Your task to perform on an android device: turn on the 12-hour format for clock Image 0: 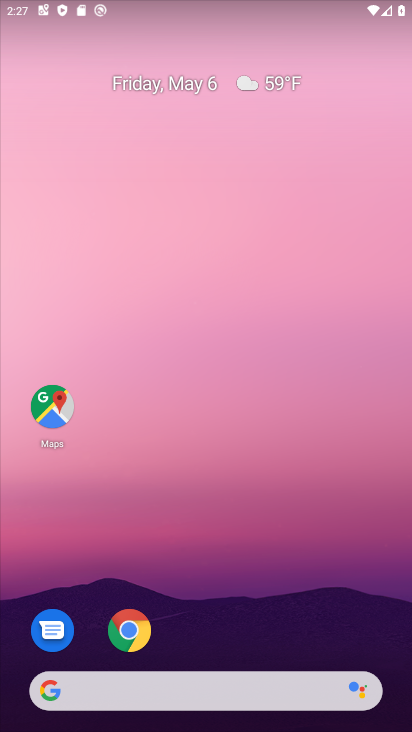
Step 0: drag from (223, 628) to (233, 146)
Your task to perform on an android device: turn on the 12-hour format for clock Image 1: 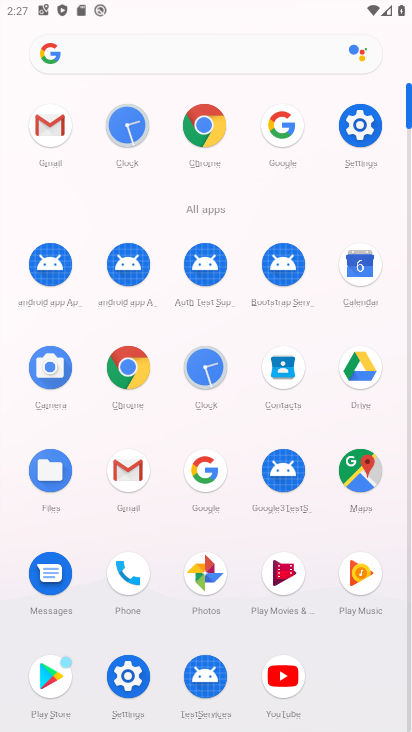
Step 1: click (203, 357)
Your task to perform on an android device: turn on the 12-hour format for clock Image 2: 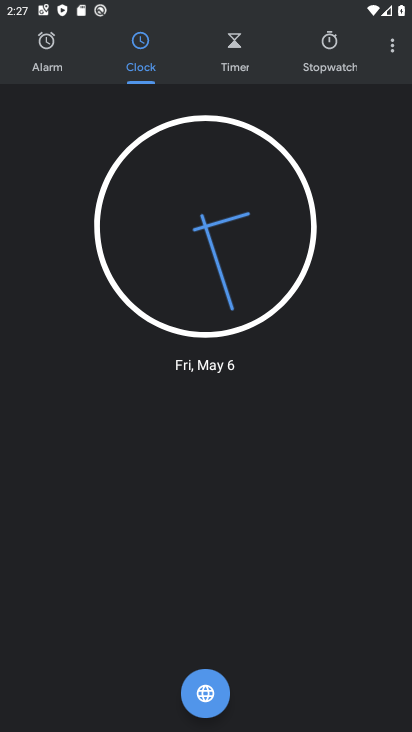
Step 2: click (390, 39)
Your task to perform on an android device: turn on the 12-hour format for clock Image 3: 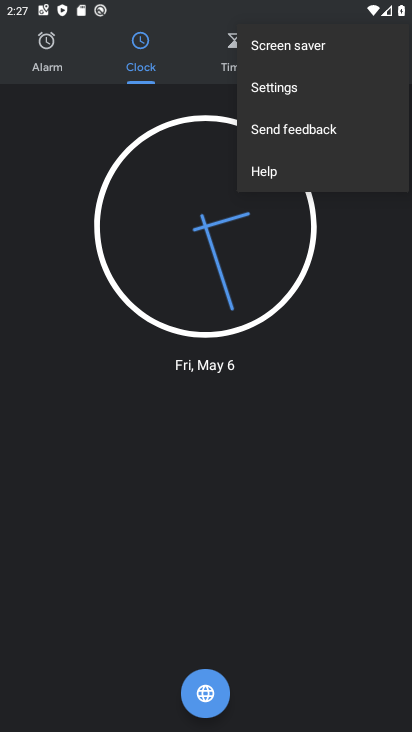
Step 3: click (275, 94)
Your task to perform on an android device: turn on the 12-hour format for clock Image 4: 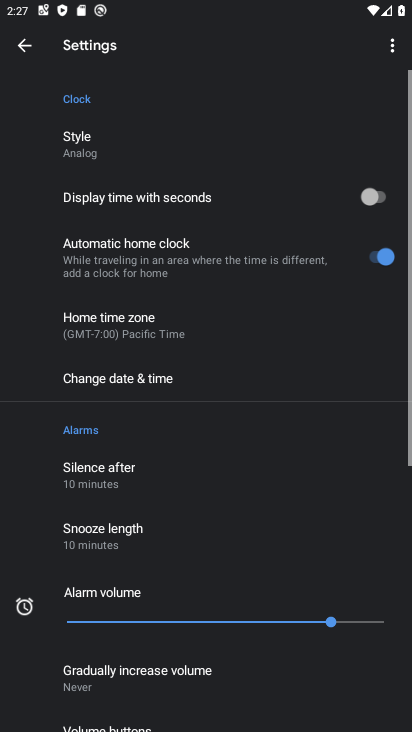
Step 4: drag from (198, 647) to (202, 300)
Your task to perform on an android device: turn on the 12-hour format for clock Image 5: 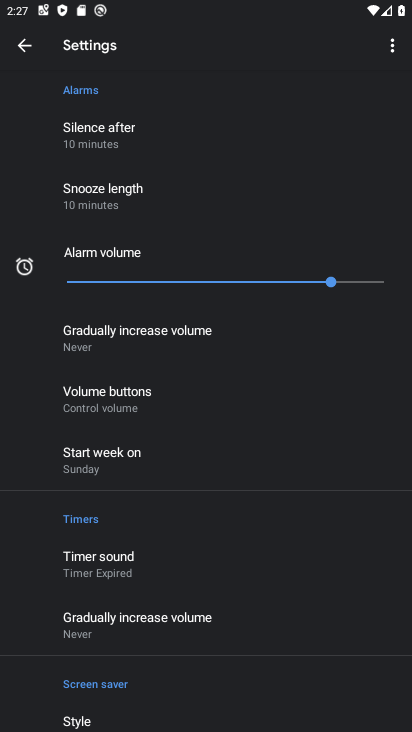
Step 5: drag from (154, 145) to (178, 568)
Your task to perform on an android device: turn on the 12-hour format for clock Image 6: 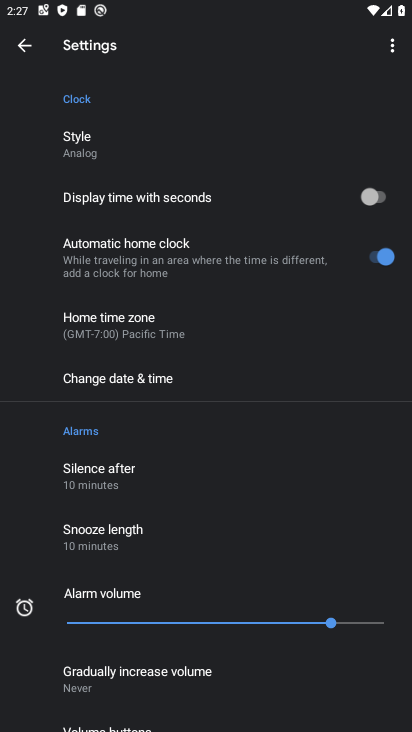
Step 6: click (118, 381)
Your task to perform on an android device: turn on the 12-hour format for clock Image 7: 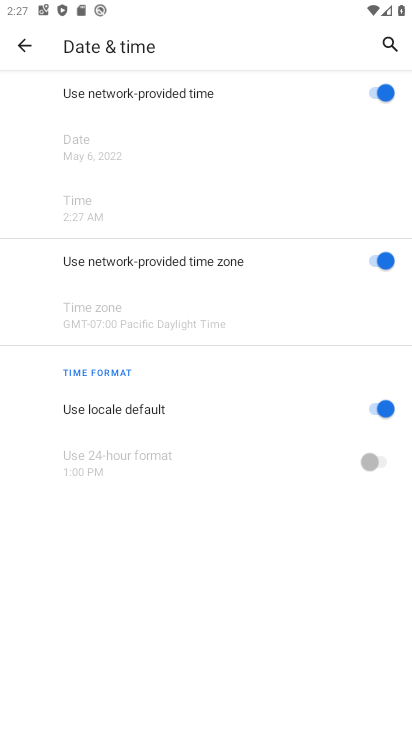
Step 7: click (377, 458)
Your task to perform on an android device: turn on the 12-hour format for clock Image 8: 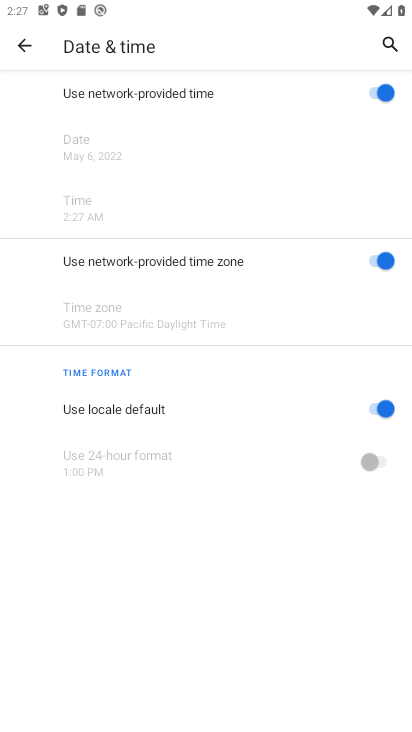
Step 8: task complete